Your task to perform on an android device: turn pop-ups off in chrome Image 0: 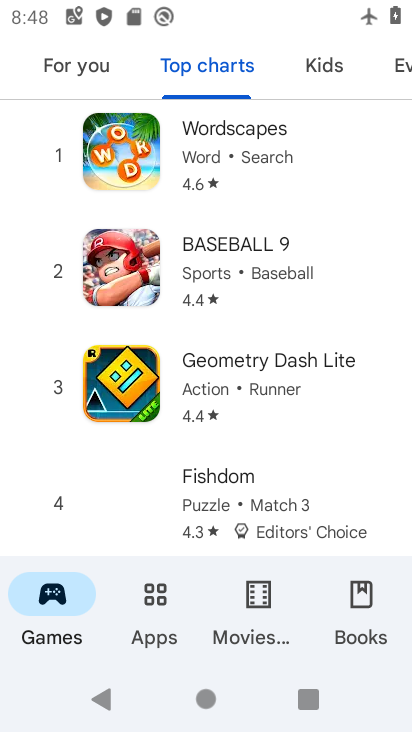
Step 0: press home button
Your task to perform on an android device: turn pop-ups off in chrome Image 1: 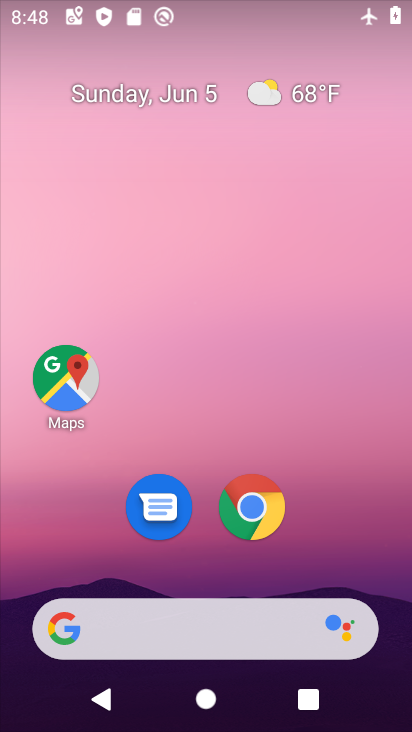
Step 1: drag from (312, 553) to (348, 5)
Your task to perform on an android device: turn pop-ups off in chrome Image 2: 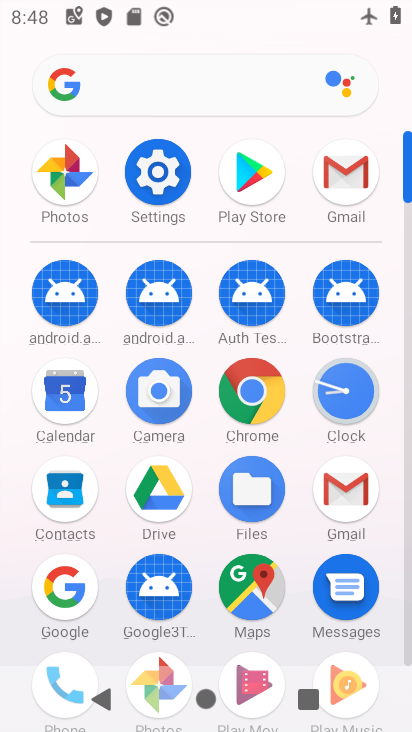
Step 2: click (248, 400)
Your task to perform on an android device: turn pop-ups off in chrome Image 3: 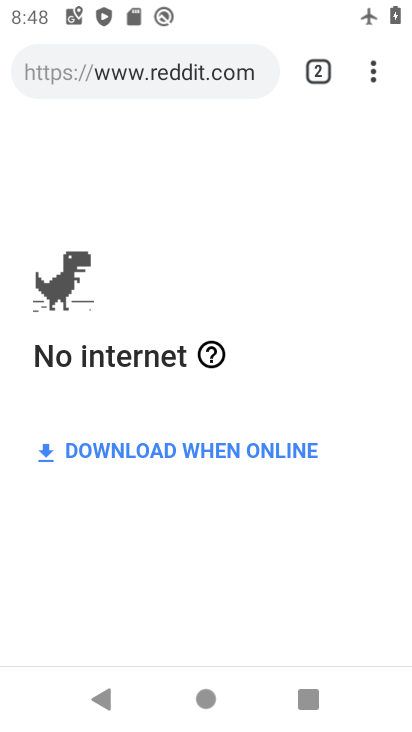
Step 3: click (372, 71)
Your task to perform on an android device: turn pop-ups off in chrome Image 4: 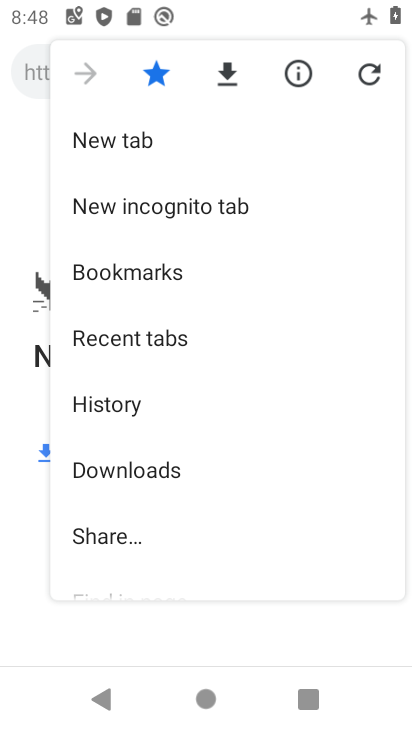
Step 4: drag from (198, 450) to (249, 117)
Your task to perform on an android device: turn pop-ups off in chrome Image 5: 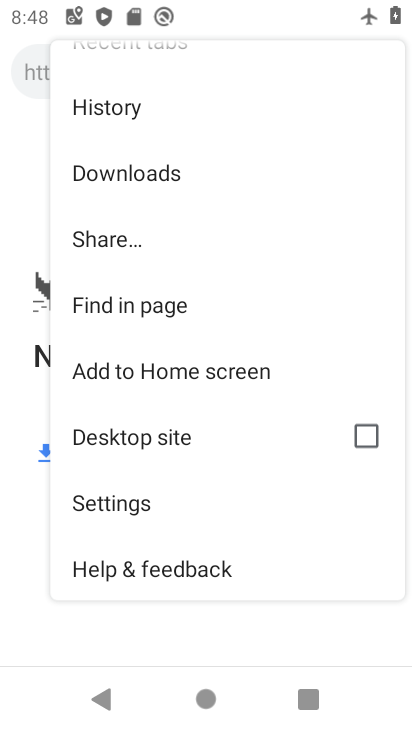
Step 5: click (141, 506)
Your task to perform on an android device: turn pop-ups off in chrome Image 6: 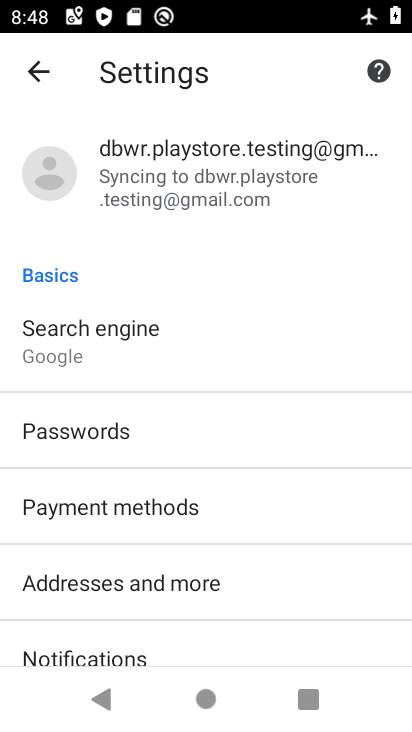
Step 6: drag from (228, 510) to (240, 240)
Your task to perform on an android device: turn pop-ups off in chrome Image 7: 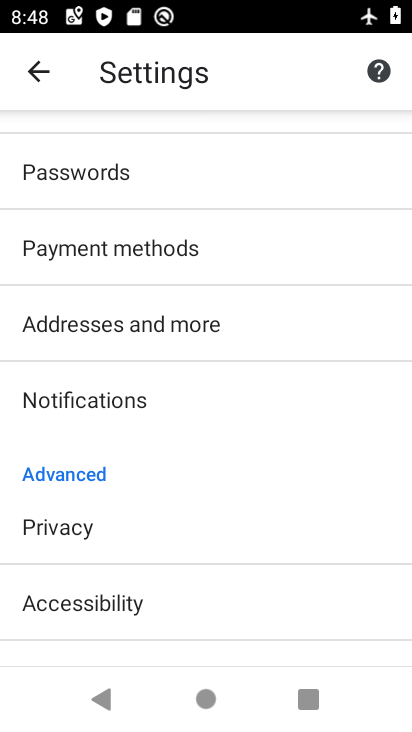
Step 7: drag from (180, 554) to (239, 264)
Your task to perform on an android device: turn pop-ups off in chrome Image 8: 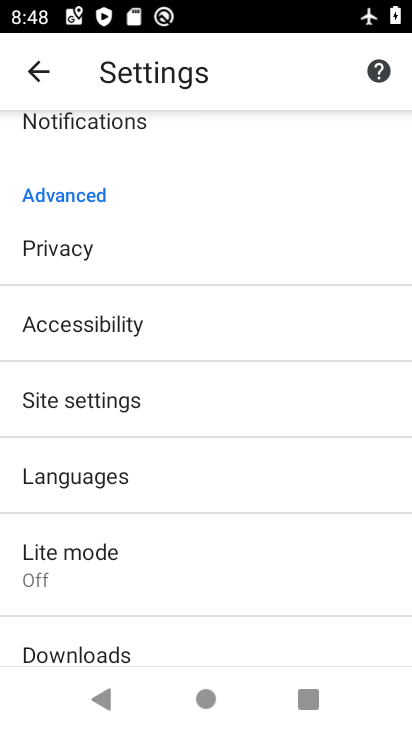
Step 8: click (127, 398)
Your task to perform on an android device: turn pop-ups off in chrome Image 9: 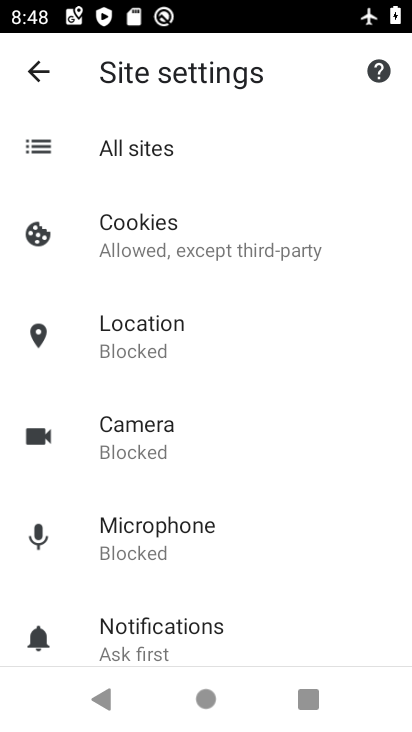
Step 9: drag from (145, 527) to (178, 256)
Your task to perform on an android device: turn pop-ups off in chrome Image 10: 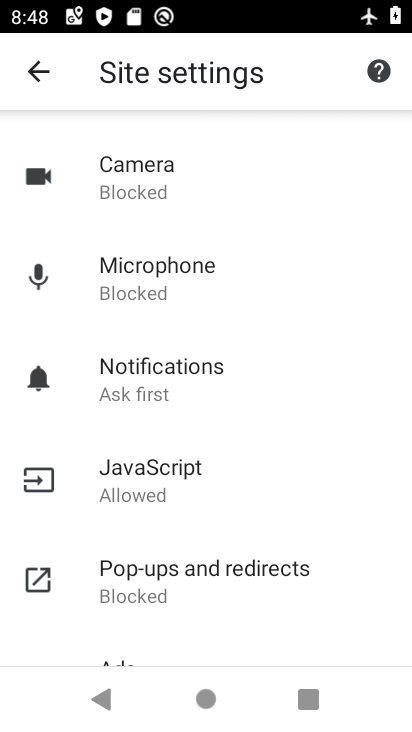
Step 10: click (164, 591)
Your task to perform on an android device: turn pop-ups off in chrome Image 11: 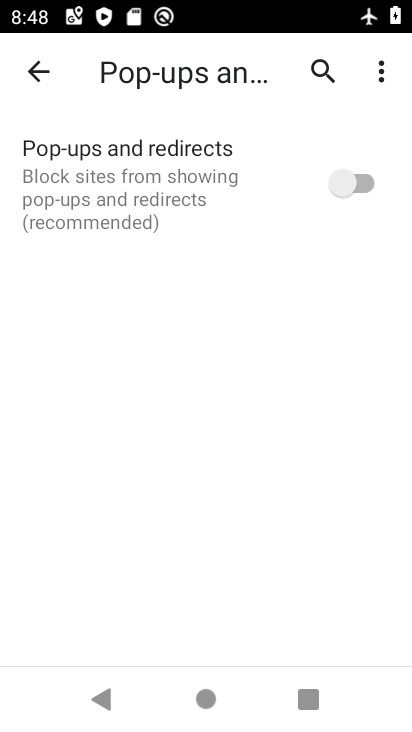
Step 11: task complete